Your task to perform on an android device: Open Google Maps and go to "Timeline" Image 0: 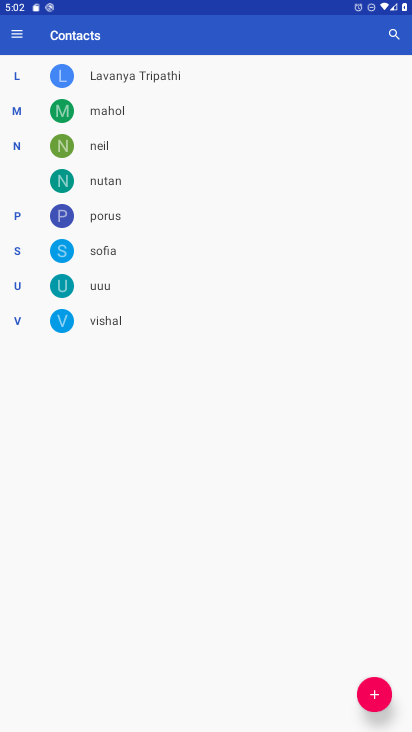
Step 0: press home button
Your task to perform on an android device: Open Google Maps and go to "Timeline" Image 1: 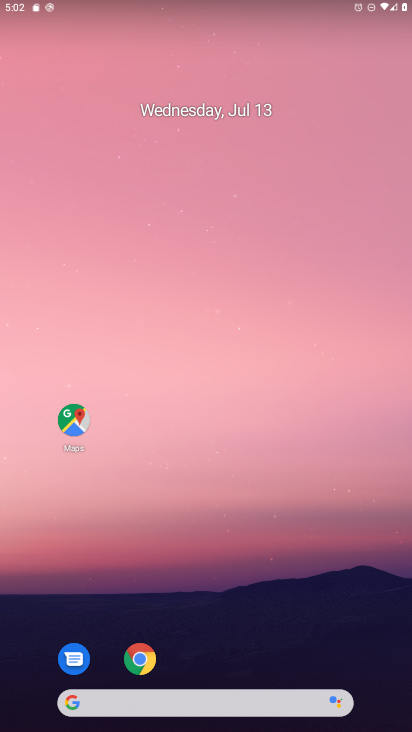
Step 1: drag from (237, 547) to (157, 6)
Your task to perform on an android device: Open Google Maps and go to "Timeline" Image 2: 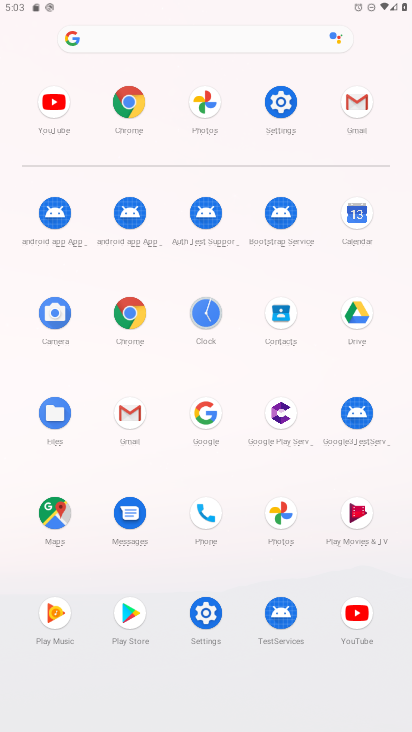
Step 2: click (65, 511)
Your task to perform on an android device: Open Google Maps and go to "Timeline" Image 3: 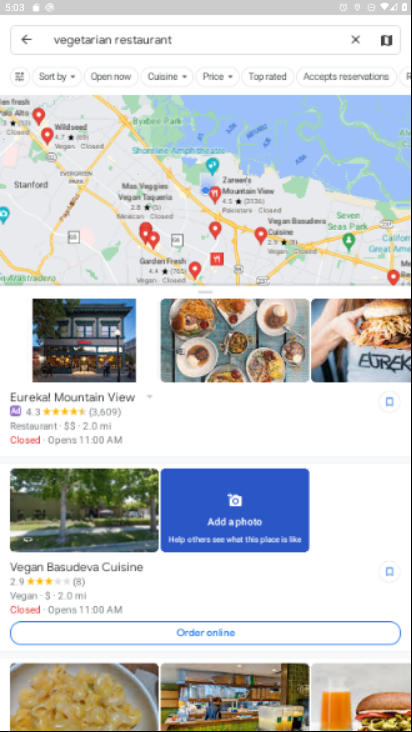
Step 3: click (32, 41)
Your task to perform on an android device: Open Google Maps and go to "Timeline" Image 4: 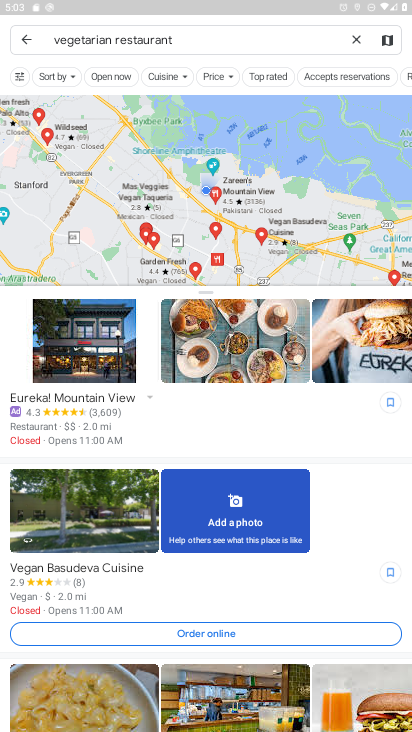
Step 4: click (27, 40)
Your task to perform on an android device: Open Google Maps and go to "Timeline" Image 5: 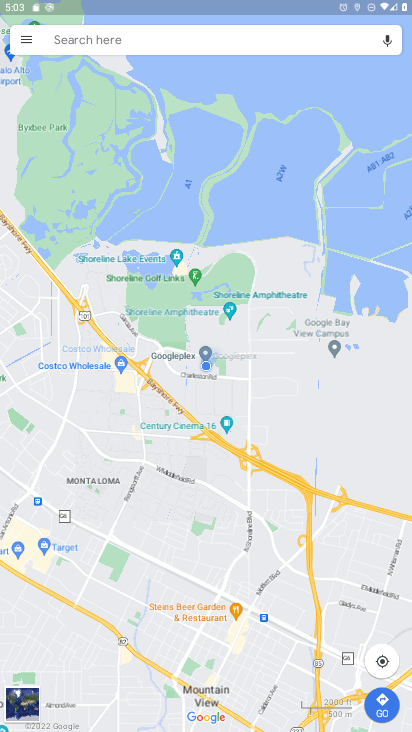
Step 5: click (31, 42)
Your task to perform on an android device: Open Google Maps and go to "Timeline" Image 6: 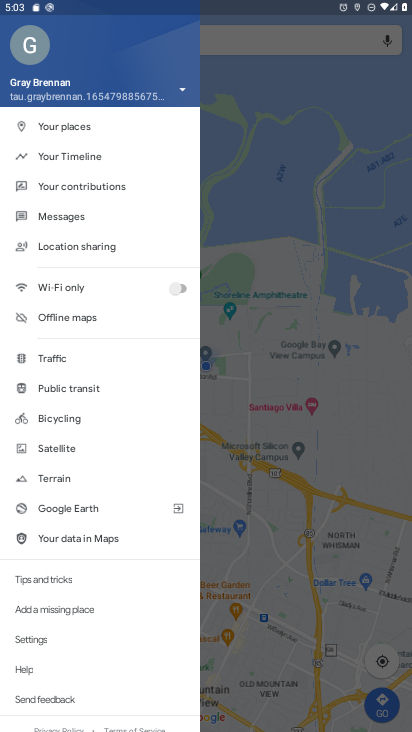
Step 6: click (54, 159)
Your task to perform on an android device: Open Google Maps and go to "Timeline" Image 7: 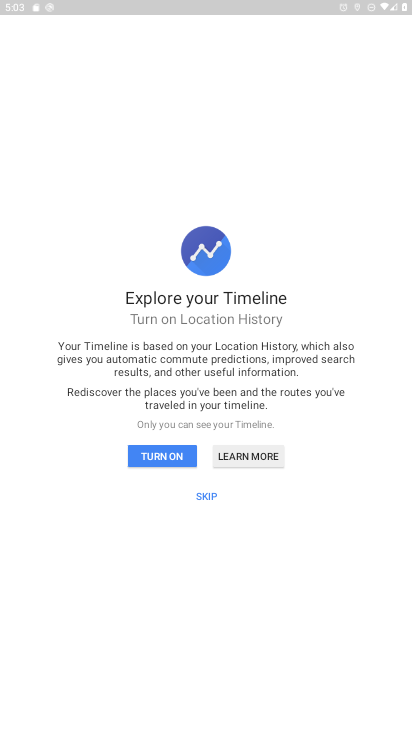
Step 7: click (215, 495)
Your task to perform on an android device: Open Google Maps and go to "Timeline" Image 8: 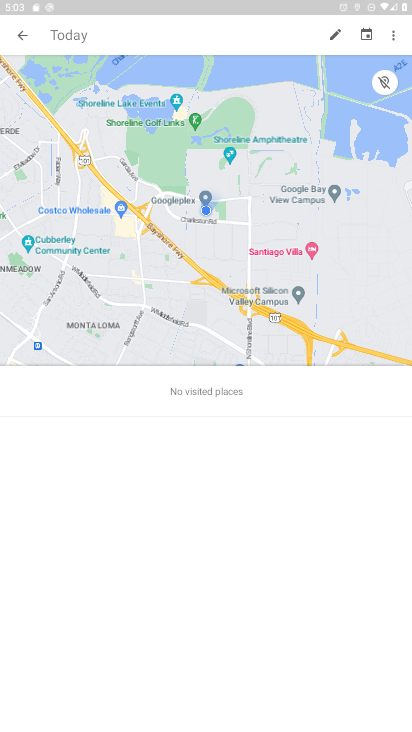
Step 8: task complete